Your task to perform on an android device: turn off smart reply in the gmail app Image 0: 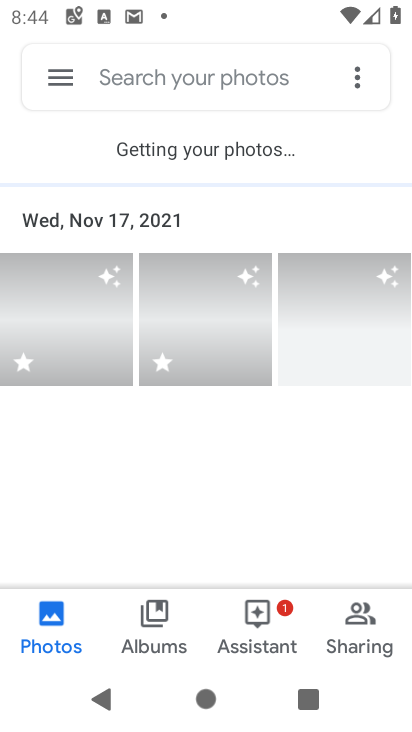
Step 0: drag from (242, 697) to (142, 7)
Your task to perform on an android device: turn off smart reply in the gmail app Image 1: 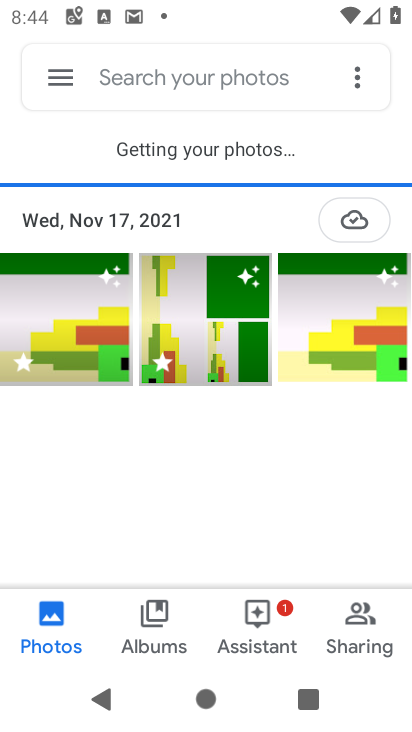
Step 1: press home button
Your task to perform on an android device: turn off smart reply in the gmail app Image 2: 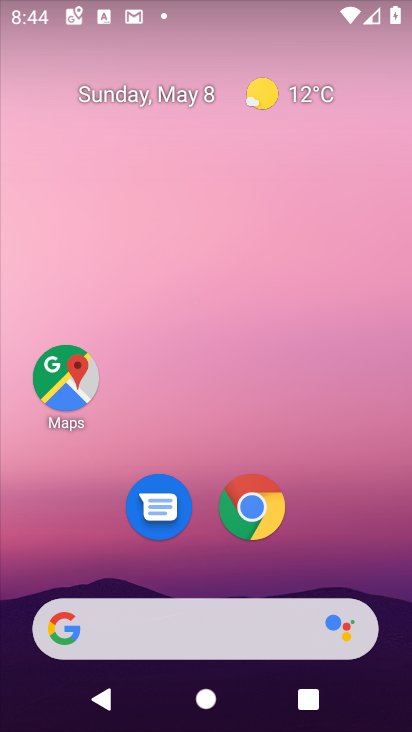
Step 2: drag from (260, 699) to (154, 38)
Your task to perform on an android device: turn off smart reply in the gmail app Image 3: 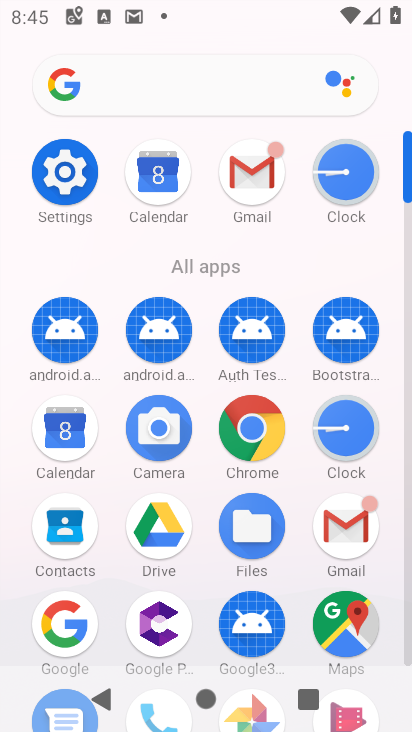
Step 3: click (347, 529)
Your task to perform on an android device: turn off smart reply in the gmail app Image 4: 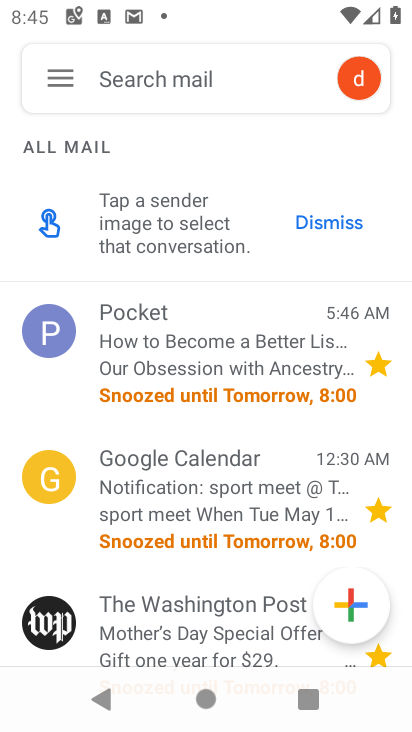
Step 4: click (61, 75)
Your task to perform on an android device: turn off smart reply in the gmail app Image 5: 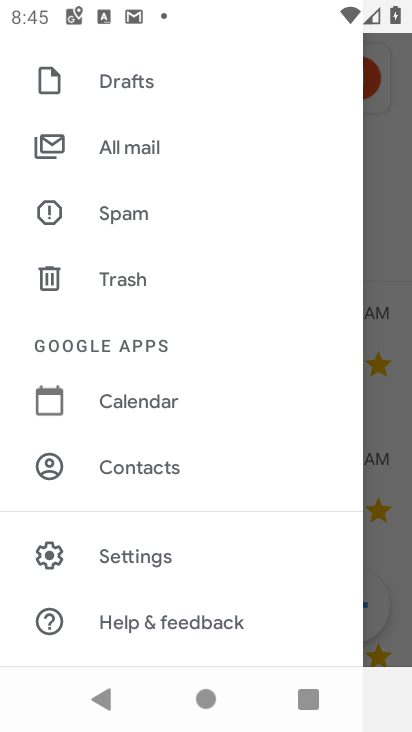
Step 5: click (137, 540)
Your task to perform on an android device: turn off smart reply in the gmail app Image 6: 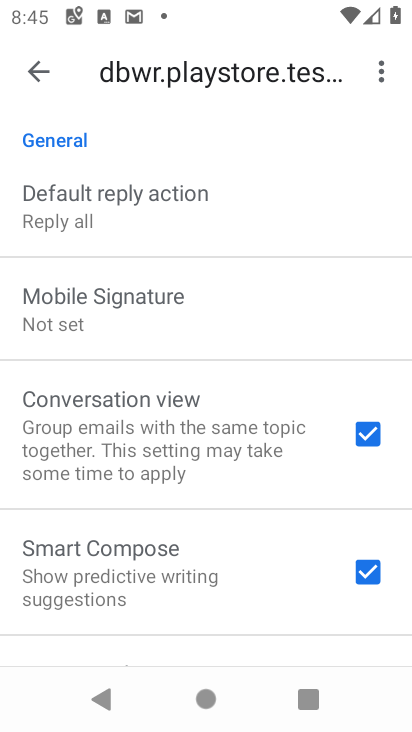
Step 6: drag from (229, 547) to (193, 116)
Your task to perform on an android device: turn off smart reply in the gmail app Image 7: 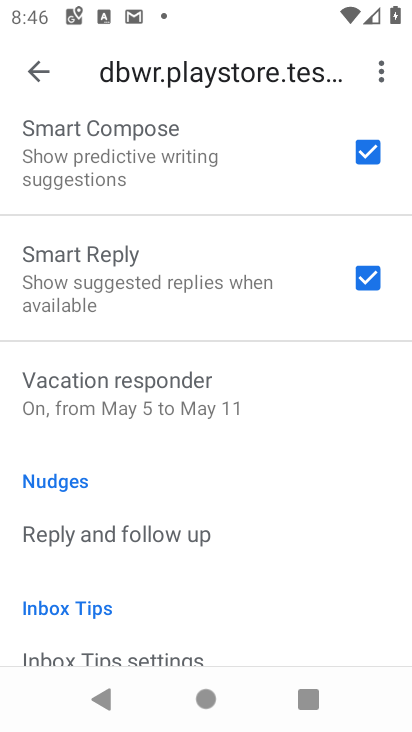
Step 7: click (381, 280)
Your task to perform on an android device: turn off smart reply in the gmail app Image 8: 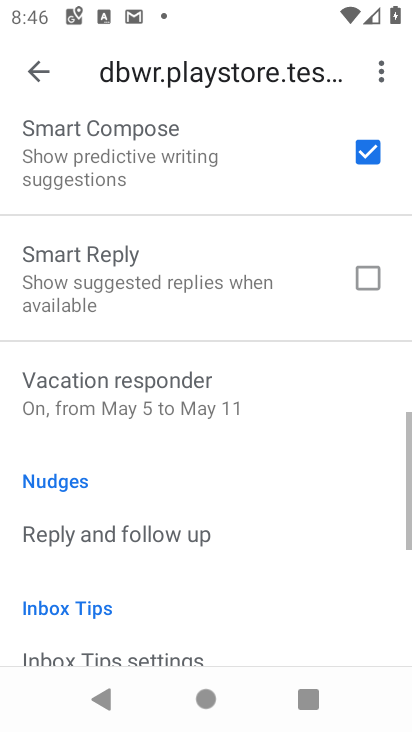
Step 8: task complete